Your task to perform on an android device: Check the weather Image 0: 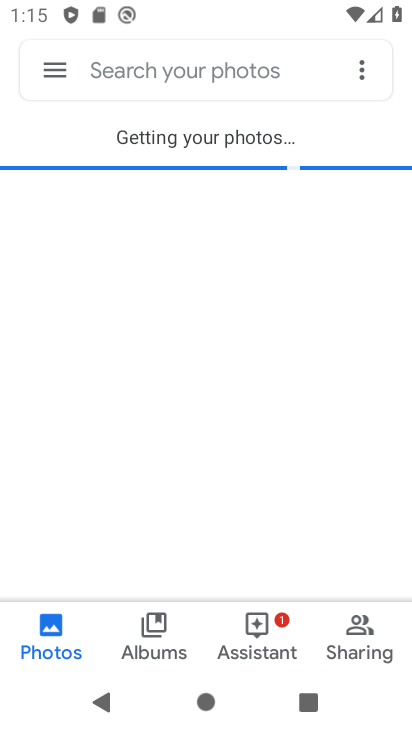
Step 0: press back button
Your task to perform on an android device: Check the weather Image 1: 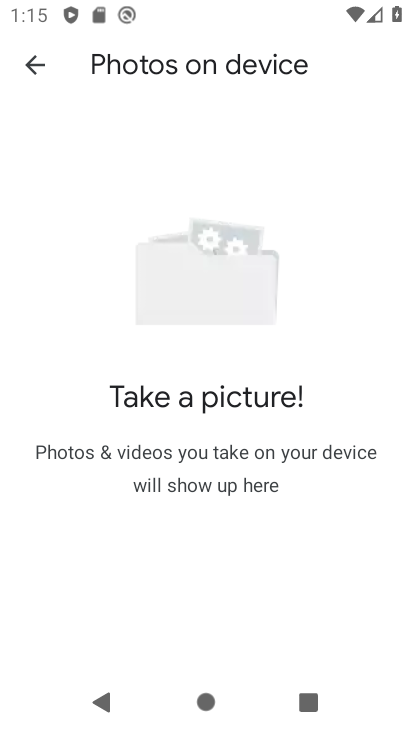
Step 1: press back button
Your task to perform on an android device: Check the weather Image 2: 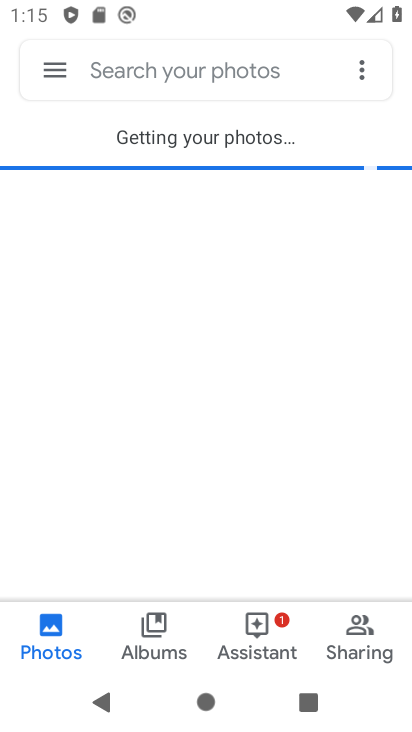
Step 2: press back button
Your task to perform on an android device: Check the weather Image 3: 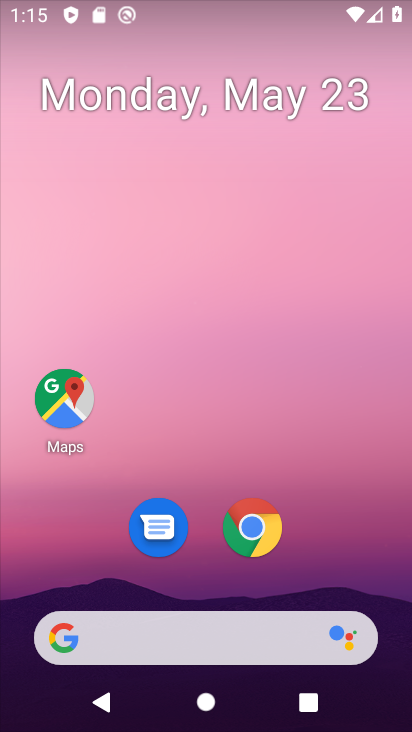
Step 3: click (178, 638)
Your task to perform on an android device: Check the weather Image 4: 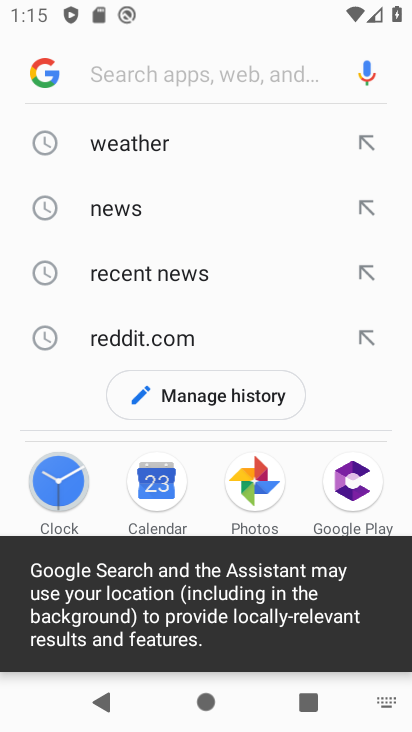
Step 4: click (128, 140)
Your task to perform on an android device: Check the weather Image 5: 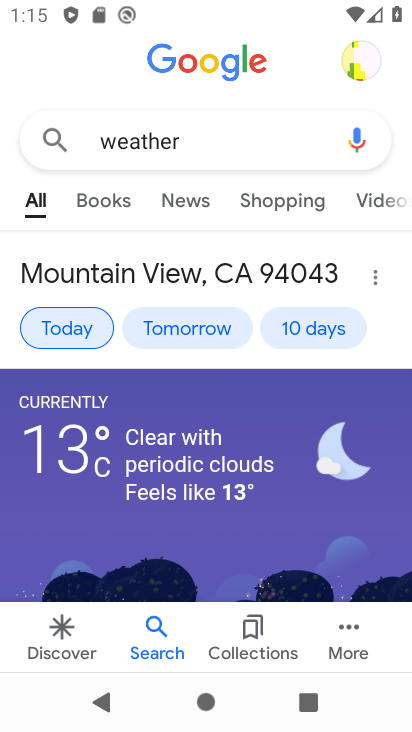
Step 5: task complete